Your task to perform on an android device: Open network settings Image 0: 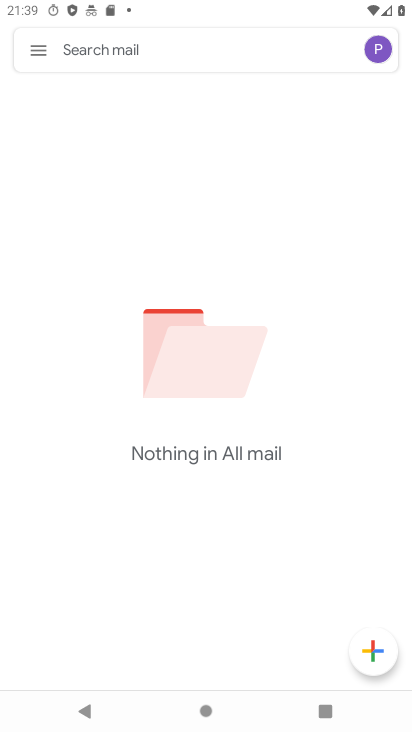
Step 0: click (402, 371)
Your task to perform on an android device: Open network settings Image 1: 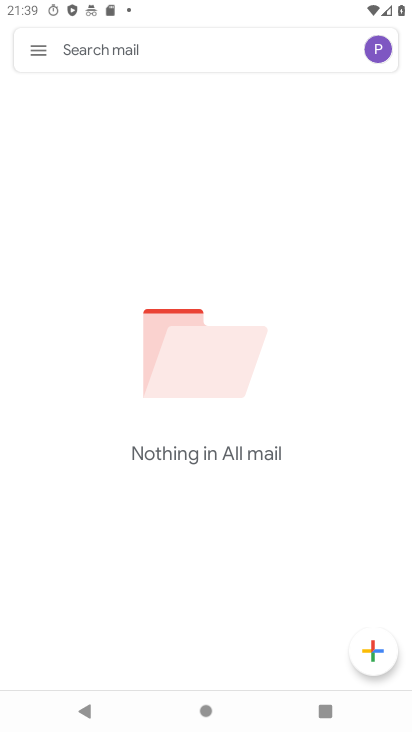
Step 1: press back button
Your task to perform on an android device: Open network settings Image 2: 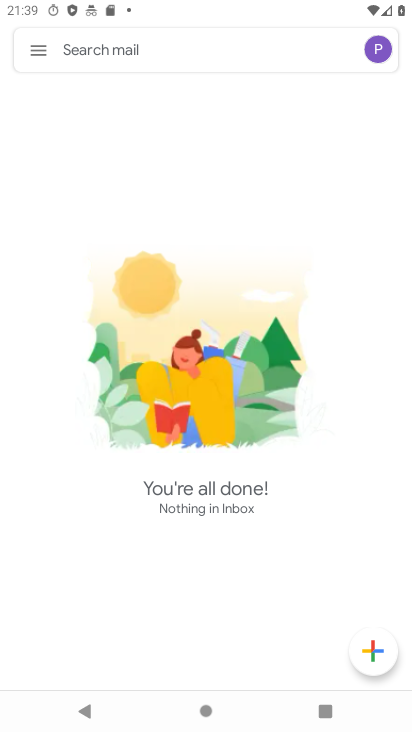
Step 2: press home button
Your task to perform on an android device: Open network settings Image 3: 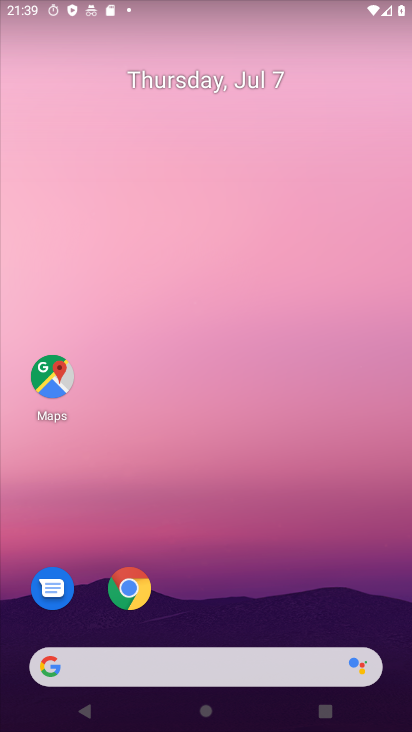
Step 3: drag from (242, 711) to (182, 99)
Your task to perform on an android device: Open network settings Image 4: 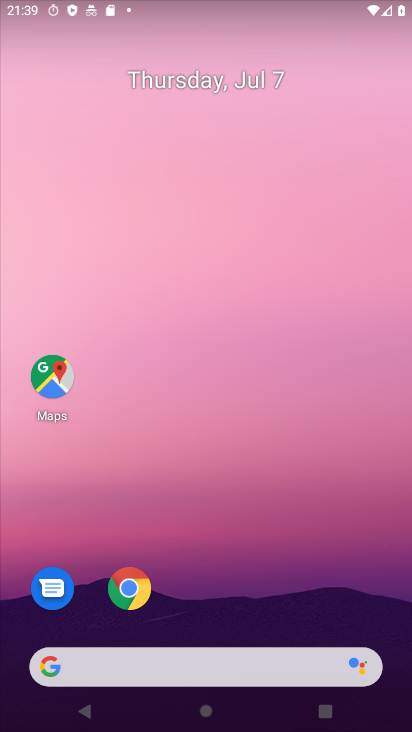
Step 4: drag from (241, 496) to (219, 166)
Your task to perform on an android device: Open network settings Image 5: 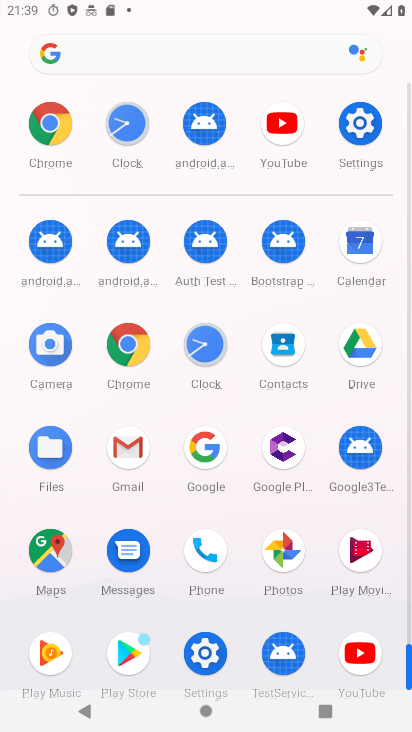
Step 5: click (356, 140)
Your task to perform on an android device: Open network settings Image 6: 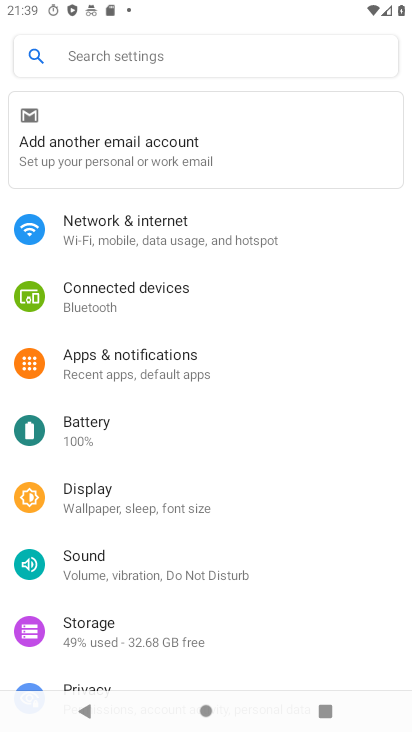
Step 6: drag from (178, 535) to (199, 236)
Your task to perform on an android device: Open network settings Image 7: 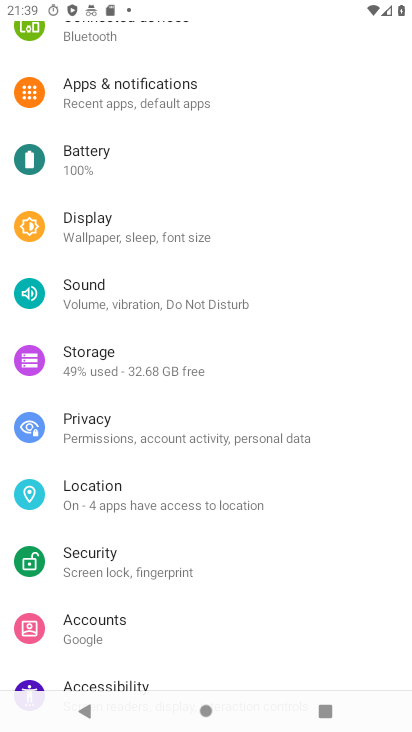
Step 7: drag from (268, 528) to (246, 190)
Your task to perform on an android device: Open network settings Image 8: 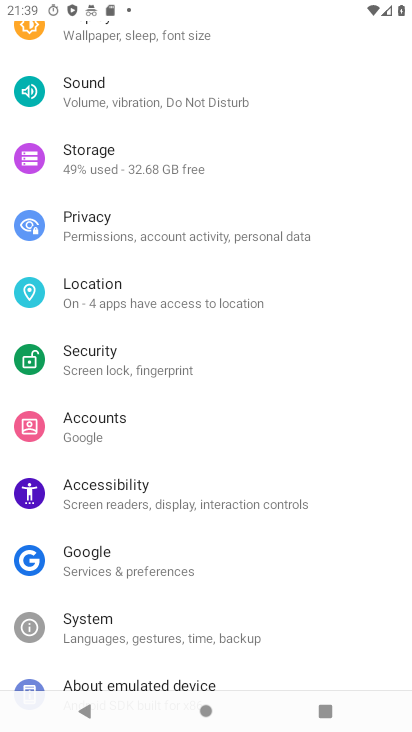
Step 8: drag from (160, 239) to (88, 595)
Your task to perform on an android device: Open network settings Image 9: 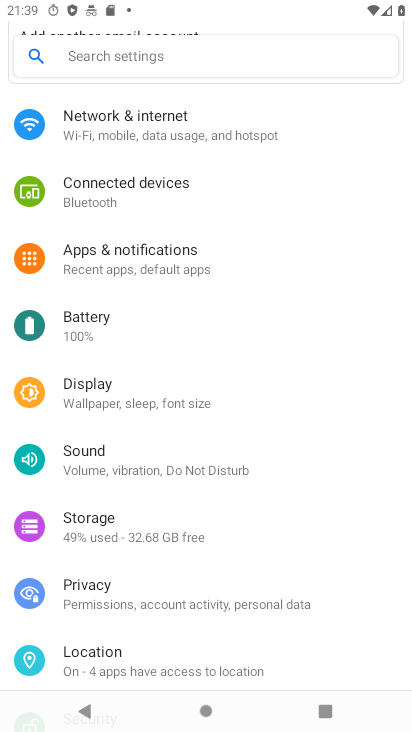
Step 9: drag from (131, 246) to (137, 524)
Your task to perform on an android device: Open network settings Image 10: 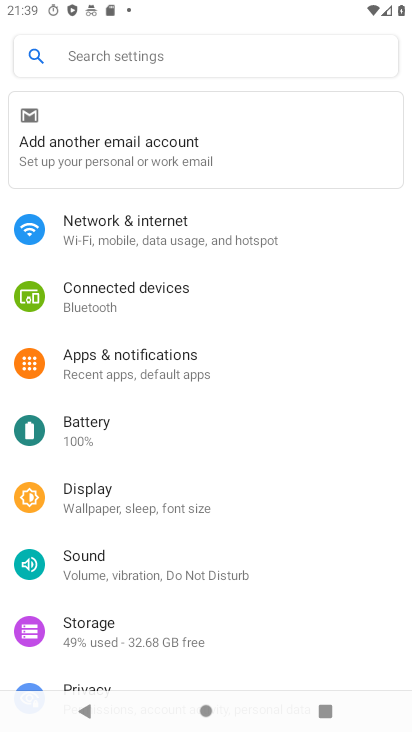
Step 10: click (168, 227)
Your task to perform on an android device: Open network settings Image 11: 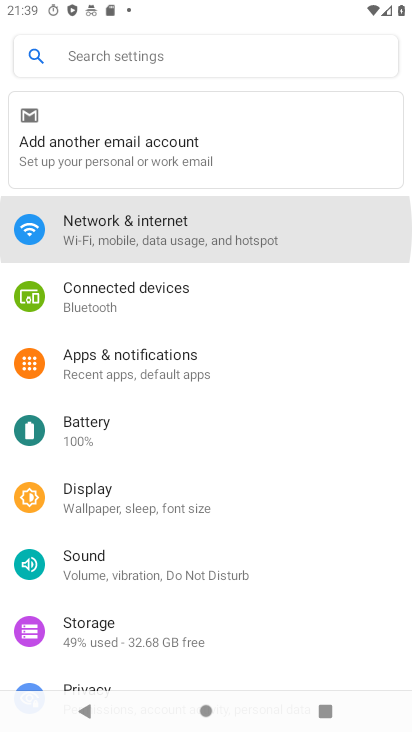
Step 11: click (168, 227)
Your task to perform on an android device: Open network settings Image 12: 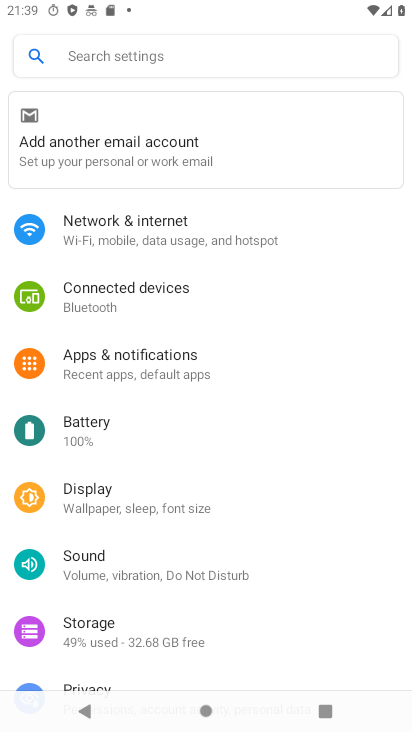
Step 12: click (168, 227)
Your task to perform on an android device: Open network settings Image 13: 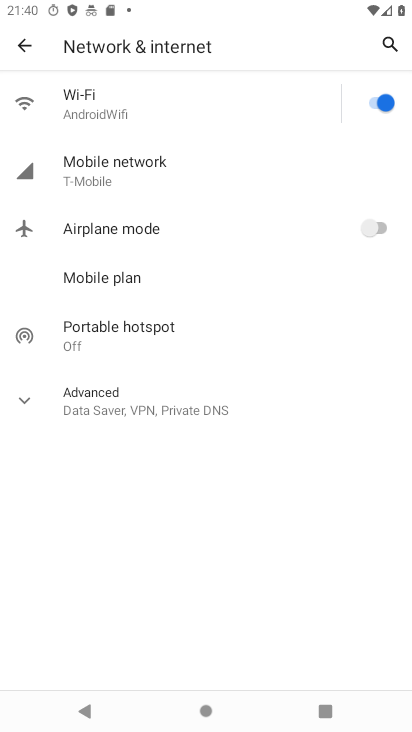
Step 13: click (97, 168)
Your task to perform on an android device: Open network settings Image 14: 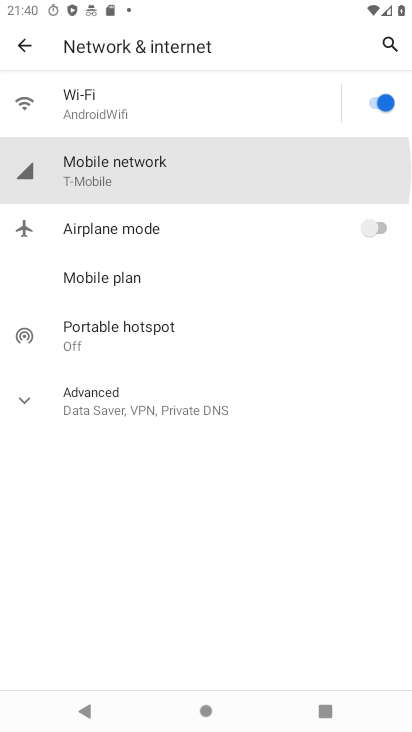
Step 14: click (97, 168)
Your task to perform on an android device: Open network settings Image 15: 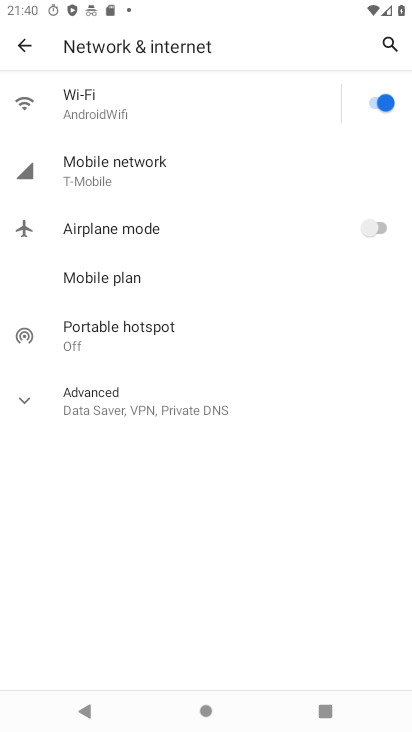
Step 15: click (97, 168)
Your task to perform on an android device: Open network settings Image 16: 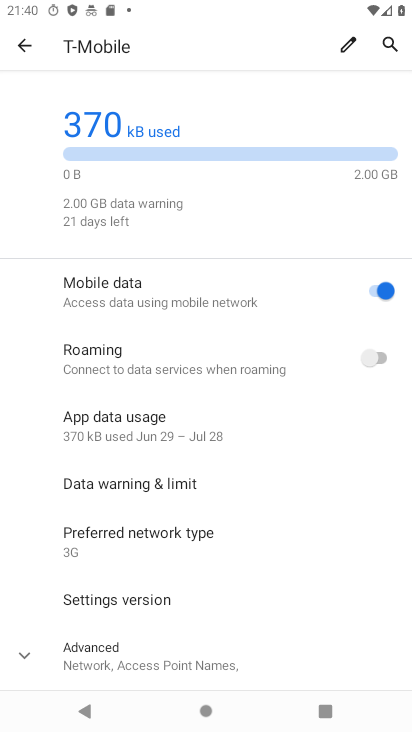
Step 16: task complete